Your task to perform on an android device: Set the phone to "Do not disturb". Image 0: 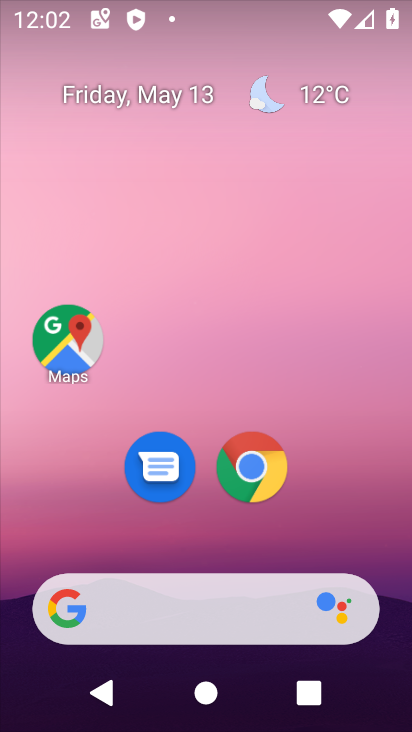
Step 0: drag from (323, 528) to (273, 57)
Your task to perform on an android device: Set the phone to "Do not disturb". Image 1: 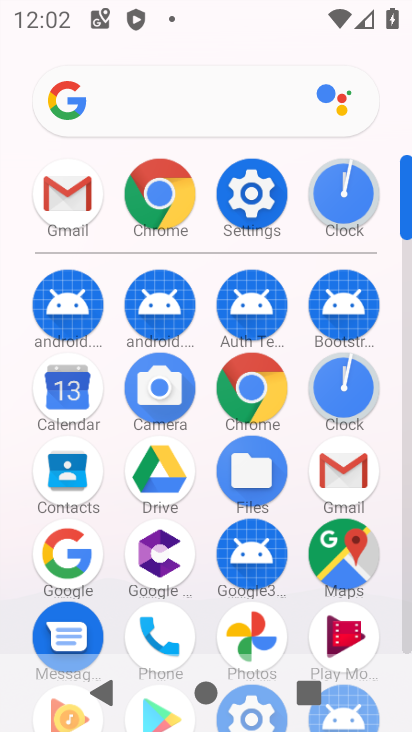
Step 1: drag from (17, 613) to (2, 298)
Your task to perform on an android device: Set the phone to "Do not disturb". Image 2: 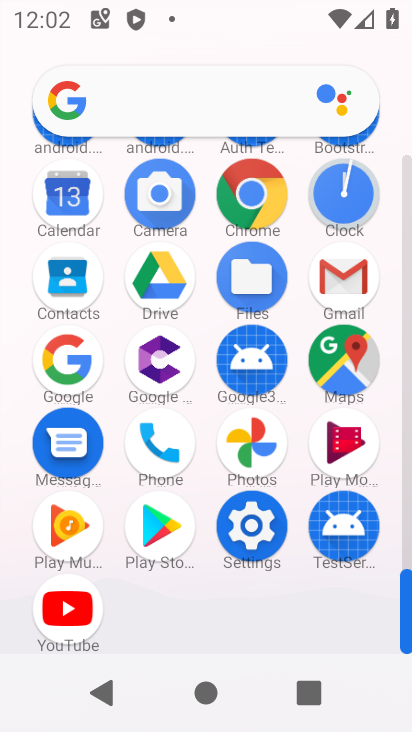
Step 2: click (249, 524)
Your task to perform on an android device: Set the phone to "Do not disturb". Image 3: 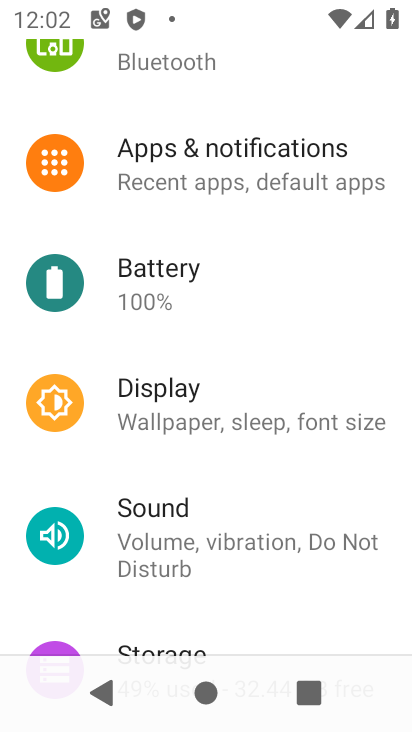
Step 3: click (234, 536)
Your task to perform on an android device: Set the phone to "Do not disturb". Image 4: 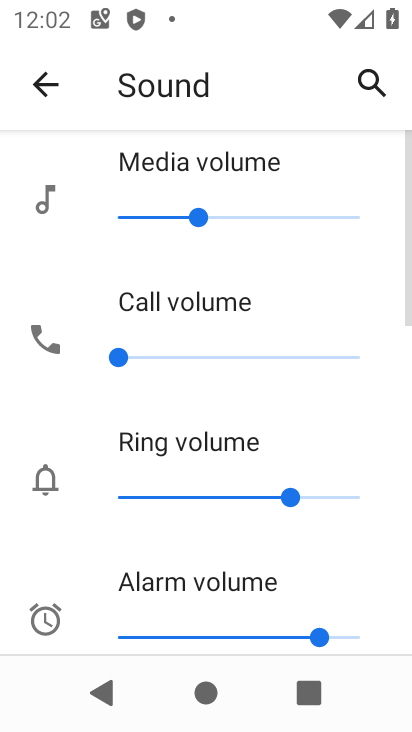
Step 4: drag from (228, 539) to (262, 139)
Your task to perform on an android device: Set the phone to "Do not disturb". Image 5: 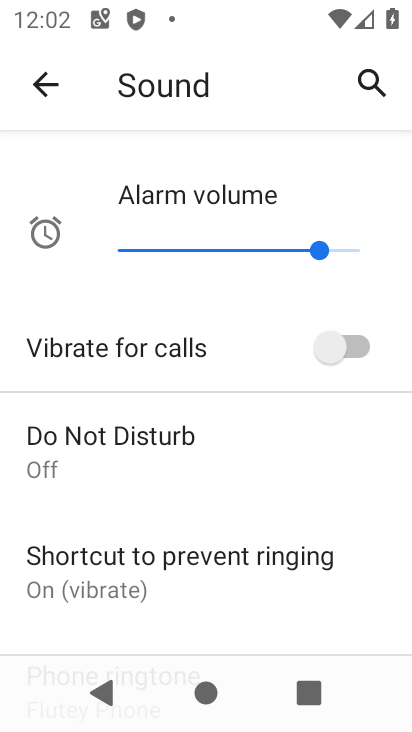
Step 5: drag from (211, 603) to (209, 192)
Your task to perform on an android device: Set the phone to "Do not disturb". Image 6: 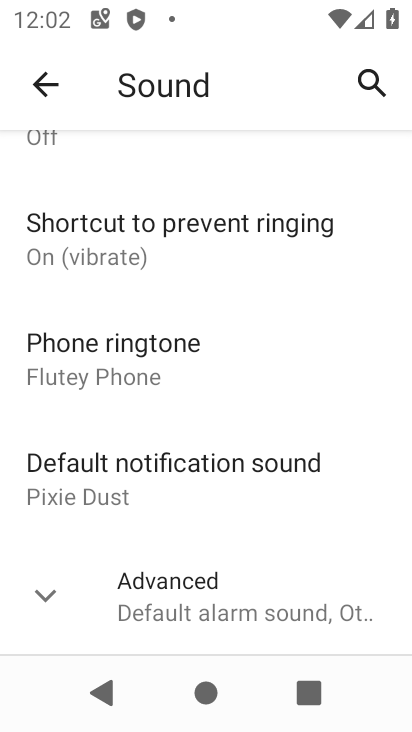
Step 6: click (74, 569)
Your task to perform on an android device: Set the phone to "Do not disturb". Image 7: 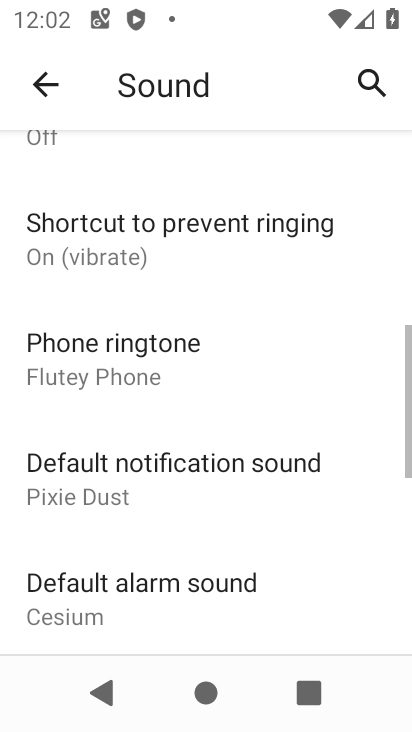
Step 7: drag from (211, 220) to (222, 588)
Your task to perform on an android device: Set the phone to "Do not disturb". Image 8: 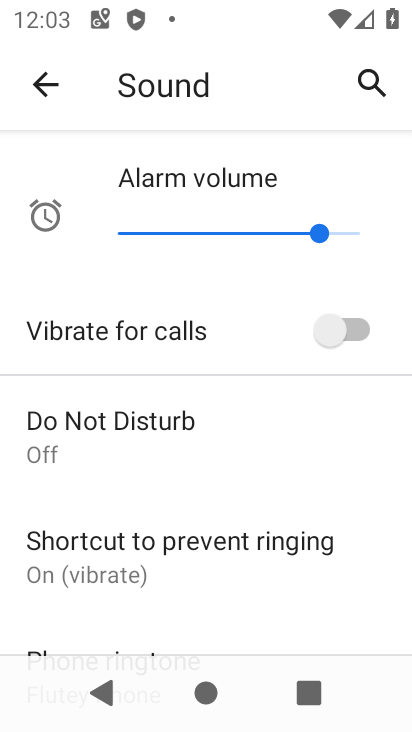
Step 8: click (168, 425)
Your task to perform on an android device: Set the phone to "Do not disturb". Image 9: 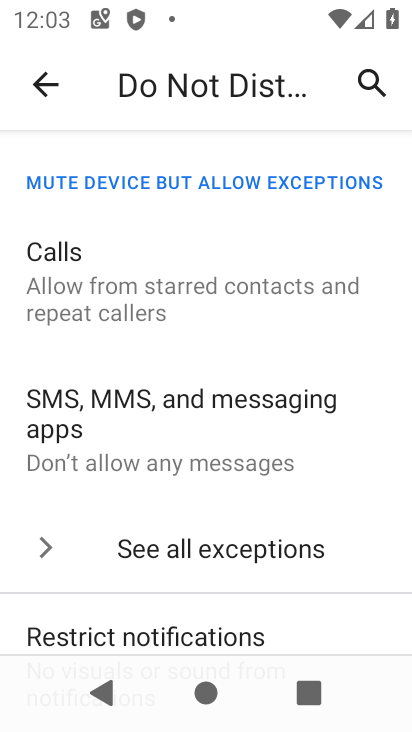
Step 9: drag from (259, 545) to (241, 155)
Your task to perform on an android device: Set the phone to "Do not disturb". Image 10: 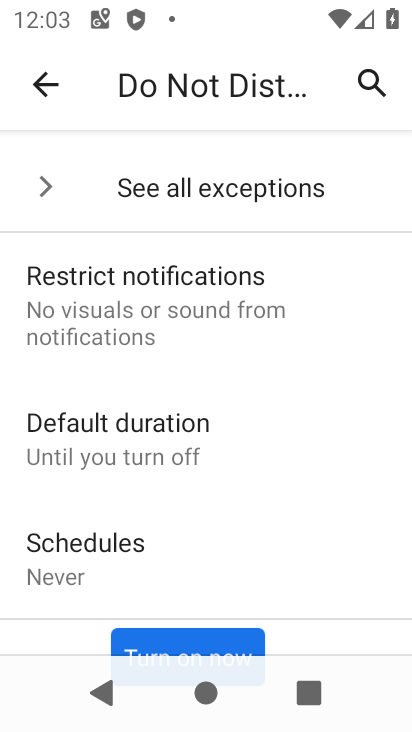
Step 10: drag from (184, 569) to (184, 245)
Your task to perform on an android device: Set the phone to "Do not disturb". Image 11: 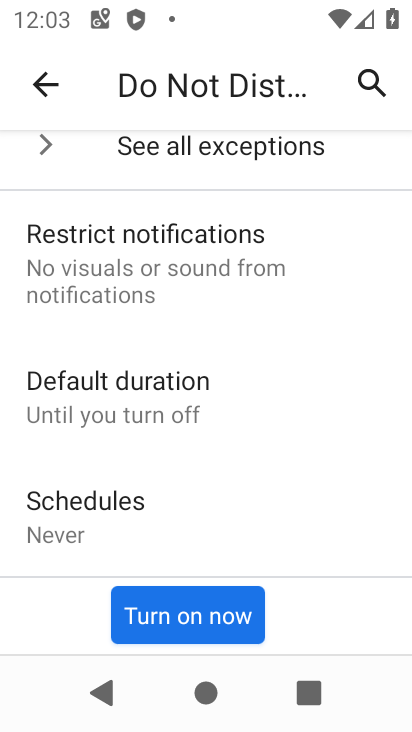
Step 11: click (173, 608)
Your task to perform on an android device: Set the phone to "Do not disturb". Image 12: 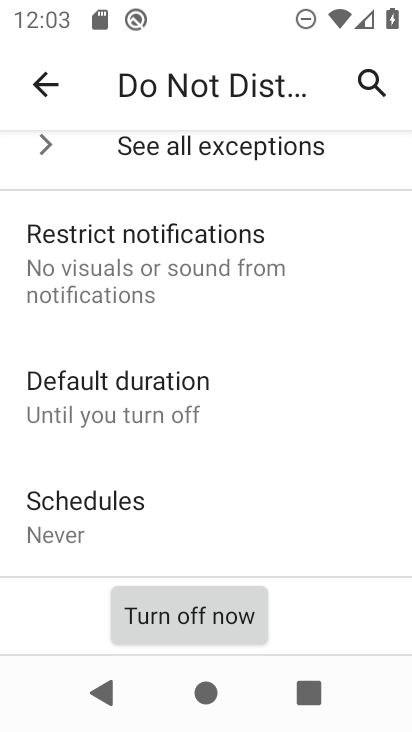
Step 12: task complete